Your task to perform on an android device: What's the weather going to be tomorrow? Image 0: 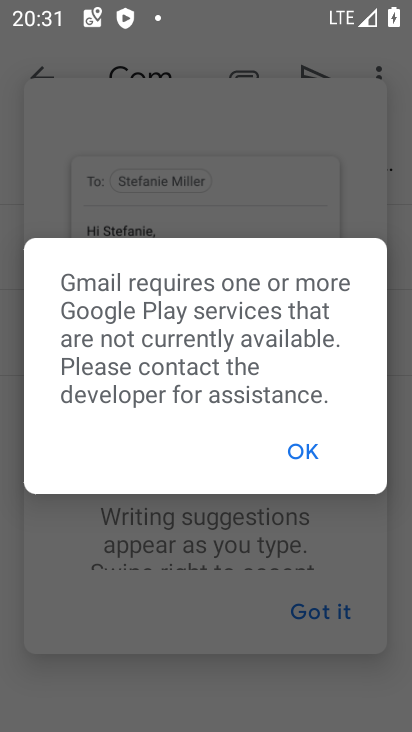
Step 0: press home button
Your task to perform on an android device: What's the weather going to be tomorrow? Image 1: 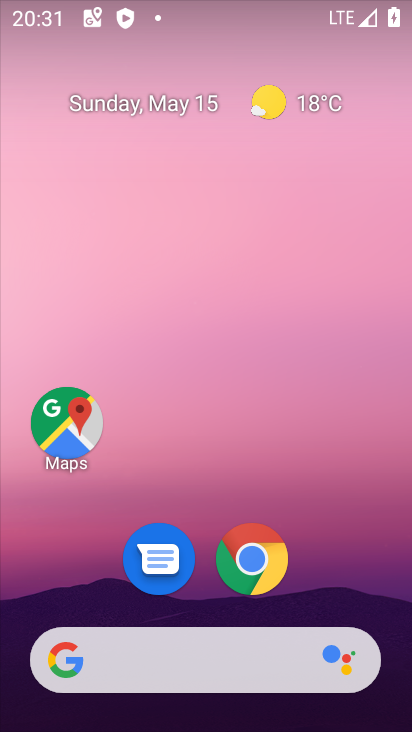
Step 1: click (192, 649)
Your task to perform on an android device: What's the weather going to be tomorrow? Image 2: 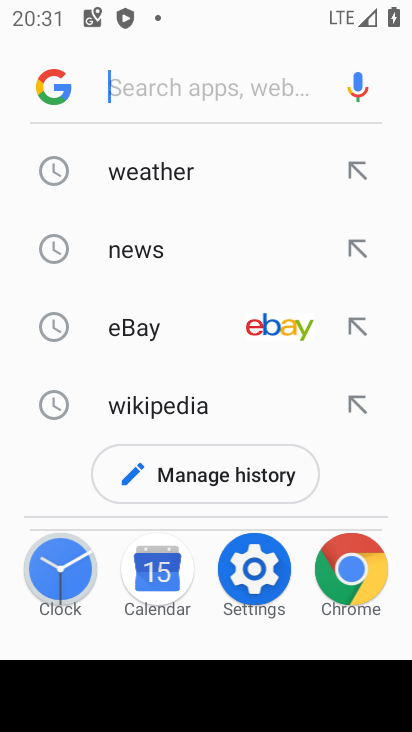
Step 2: click (133, 169)
Your task to perform on an android device: What's the weather going to be tomorrow? Image 3: 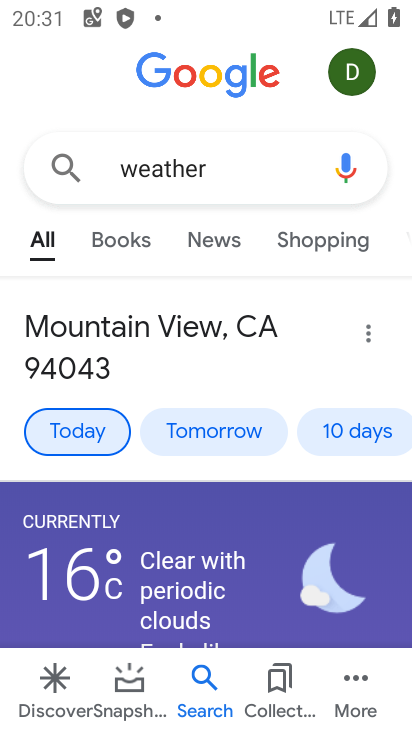
Step 3: click (204, 428)
Your task to perform on an android device: What's the weather going to be tomorrow? Image 4: 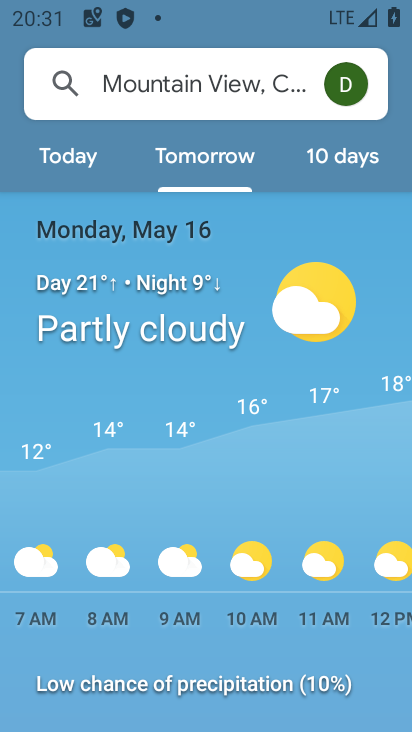
Step 4: task complete